Your task to perform on an android device: turn off javascript in the chrome app Image 0: 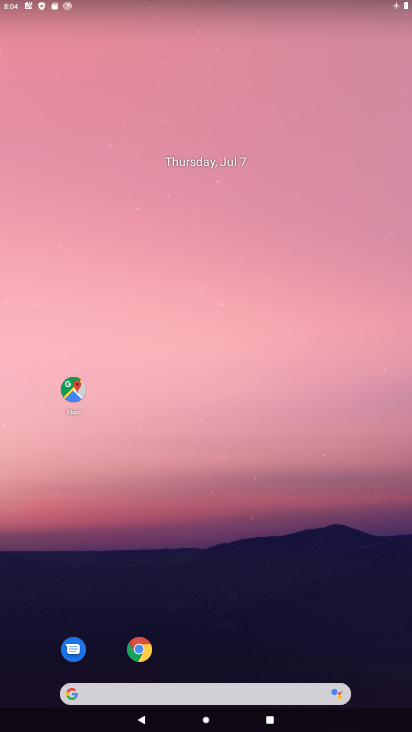
Step 0: drag from (318, 724) to (201, 251)
Your task to perform on an android device: turn off javascript in the chrome app Image 1: 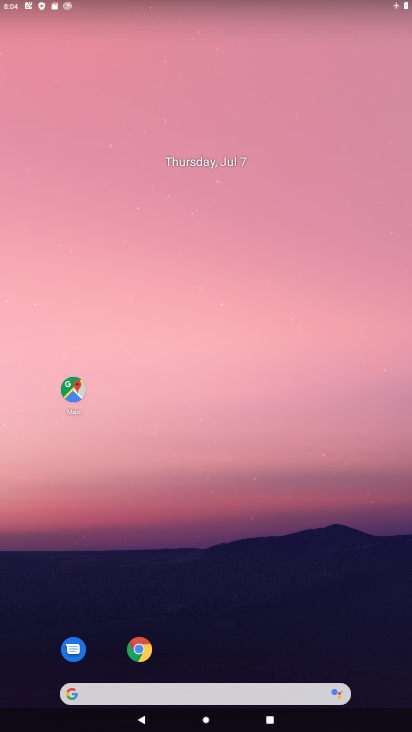
Step 1: drag from (260, 708) to (152, 190)
Your task to perform on an android device: turn off javascript in the chrome app Image 2: 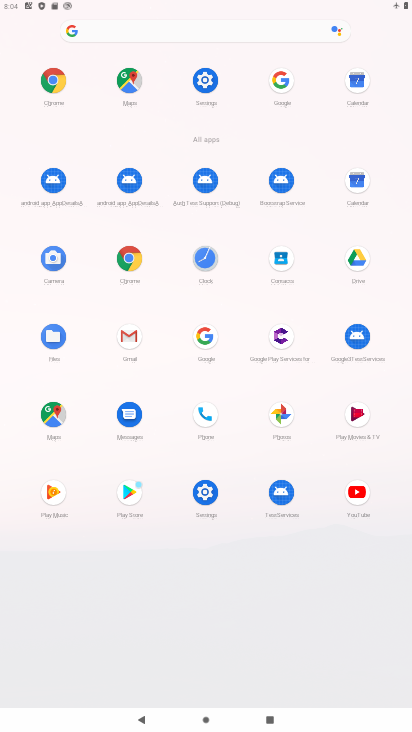
Step 2: click (206, 501)
Your task to perform on an android device: turn off javascript in the chrome app Image 3: 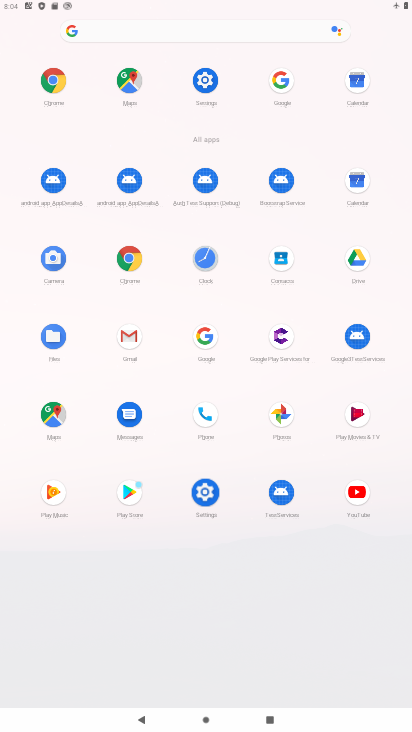
Step 3: click (206, 501)
Your task to perform on an android device: turn off javascript in the chrome app Image 4: 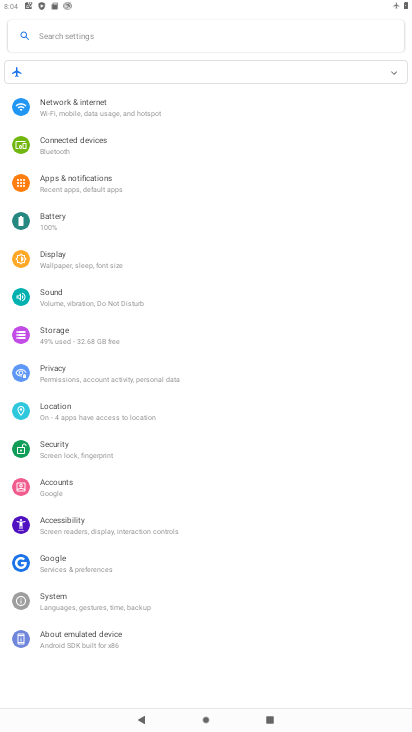
Step 4: click (206, 497)
Your task to perform on an android device: turn off javascript in the chrome app Image 5: 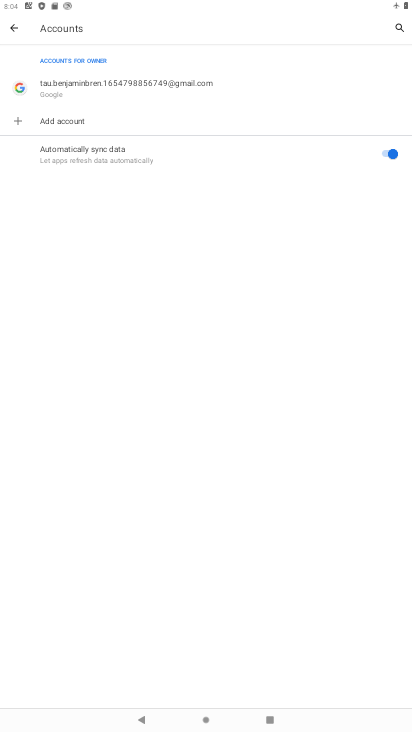
Step 5: press back button
Your task to perform on an android device: turn off javascript in the chrome app Image 6: 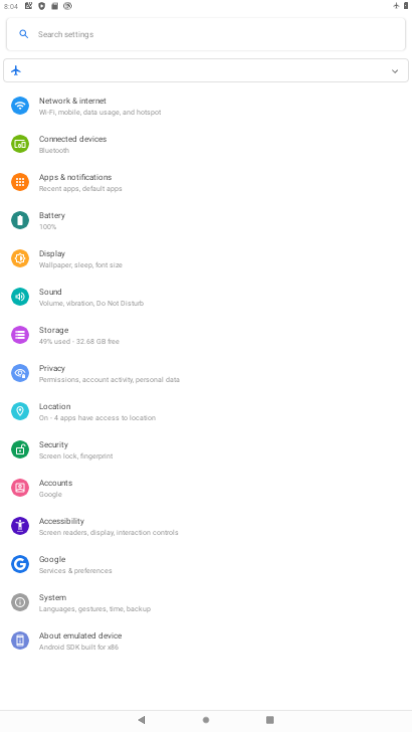
Step 6: press back button
Your task to perform on an android device: turn off javascript in the chrome app Image 7: 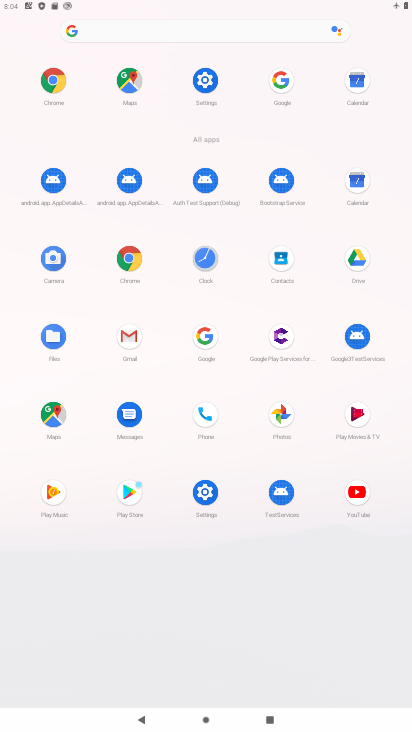
Step 7: click (135, 249)
Your task to perform on an android device: turn off javascript in the chrome app Image 8: 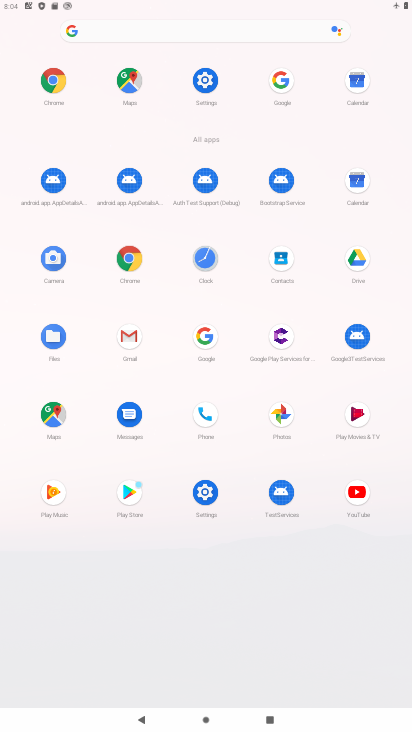
Step 8: click (135, 249)
Your task to perform on an android device: turn off javascript in the chrome app Image 9: 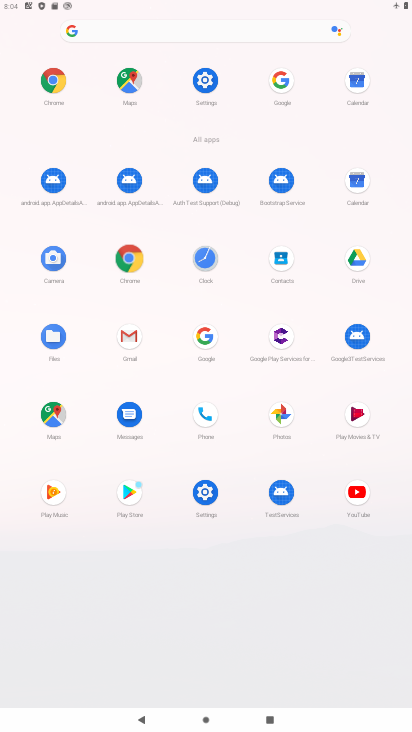
Step 9: click (135, 249)
Your task to perform on an android device: turn off javascript in the chrome app Image 10: 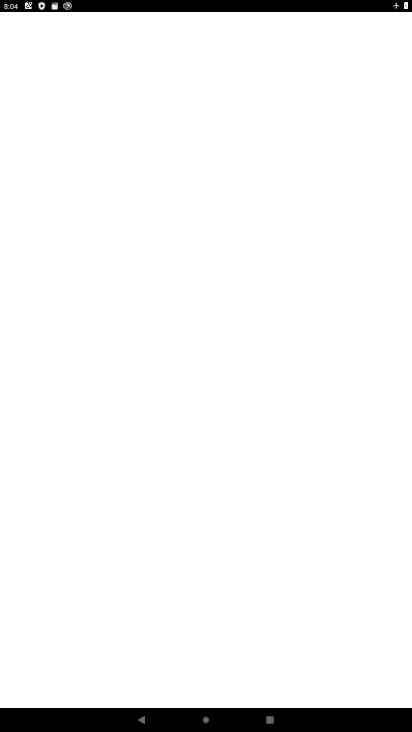
Step 10: click (135, 249)
Your task to perform on an android device: turn off javascript in the chrome app Image 11: 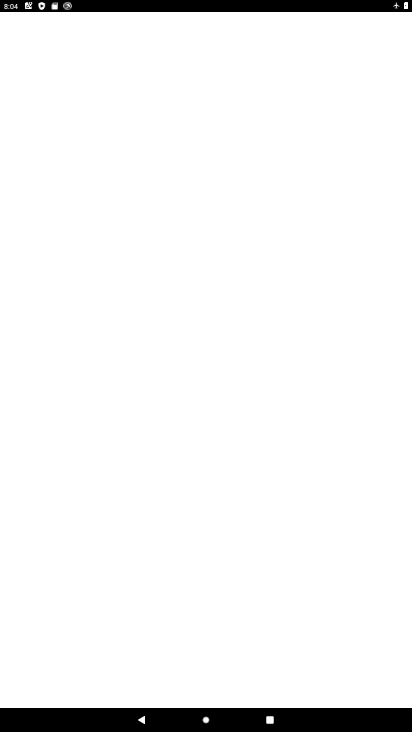
Step 11: click (135, 249)
Your task to perform on an android device: turn off javascript in the chrome app Image 12: 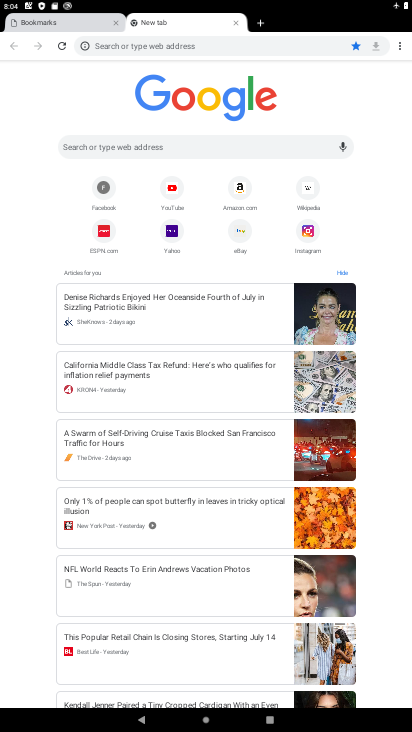
Step 12: drag from (403, 45) to (303, 209)
Your task to perform on an android device: turn off javascript in the chrome app Image 13: 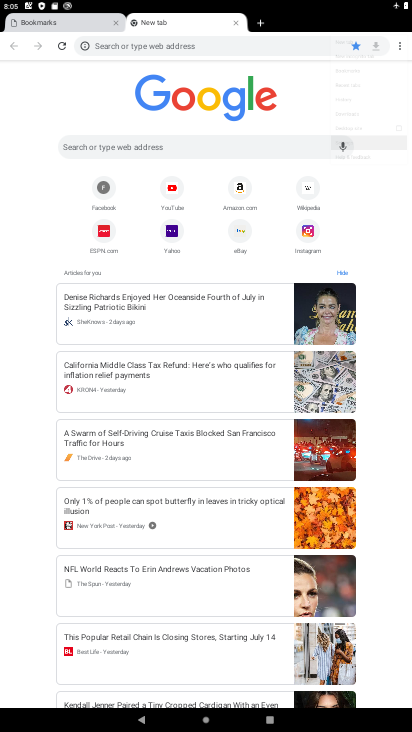
Step 13: click (303, 209)
Your task to perform on an android device: turn off javascript in the chrome app Image 14: 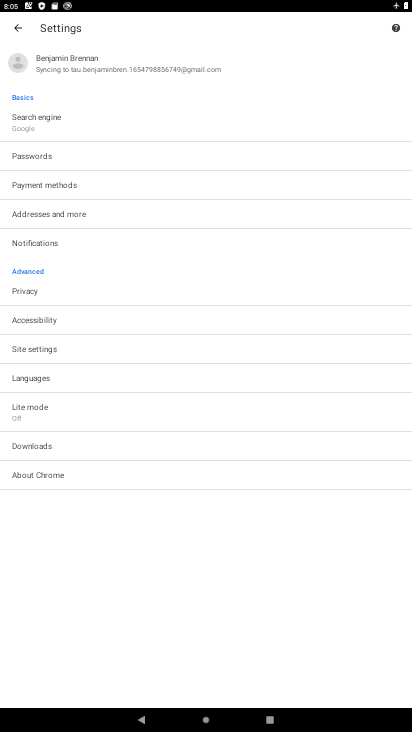
Step 14: click (47, 346)
Your task to perform on an android device: turn off javascript in the chrome app Image 15: 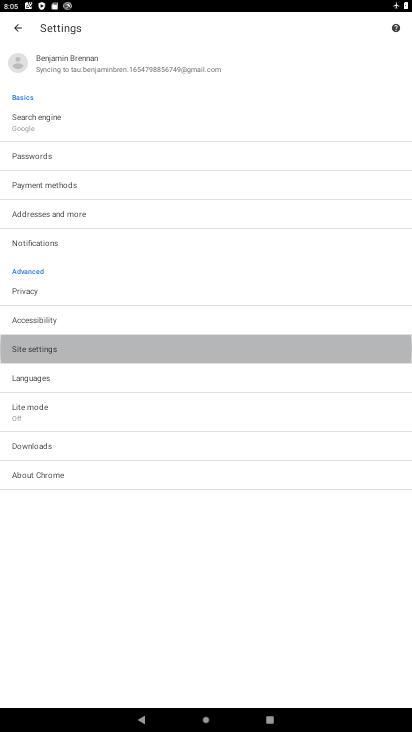
Step 15: click (47, 346)
Your task to perform on an android device: turn off javascript in the chrome app Image 16: 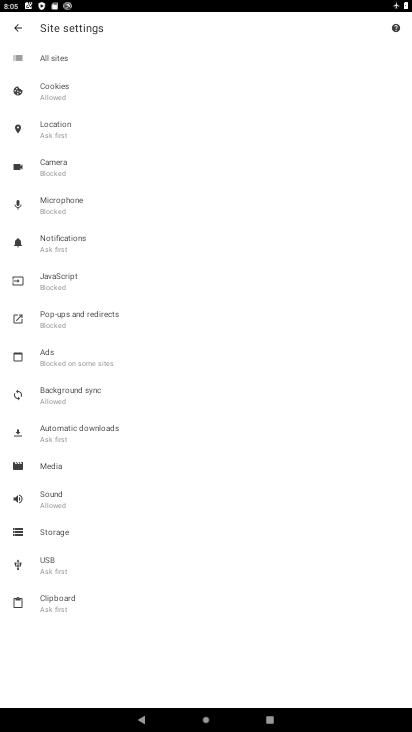
Step 16: click (56, 280)
Your task to perform on an android device: turn off javascript in the chrome app Image 17: 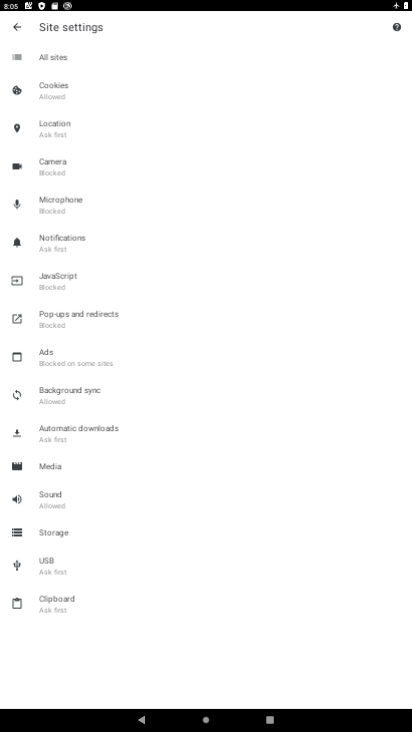
Step 17: click (56, 280)
Your task to perform on an android device: turn off javascript in the chrome app Image 18: 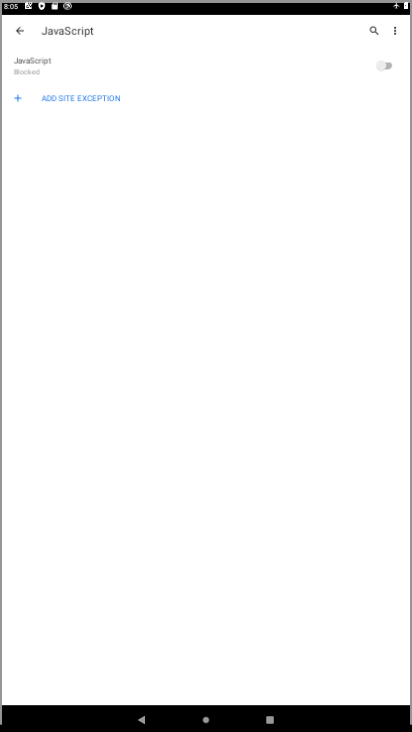
Step 18: click (56, 280)
Your task to perform on an android device: turn off javascript in the chrome app Image 19: 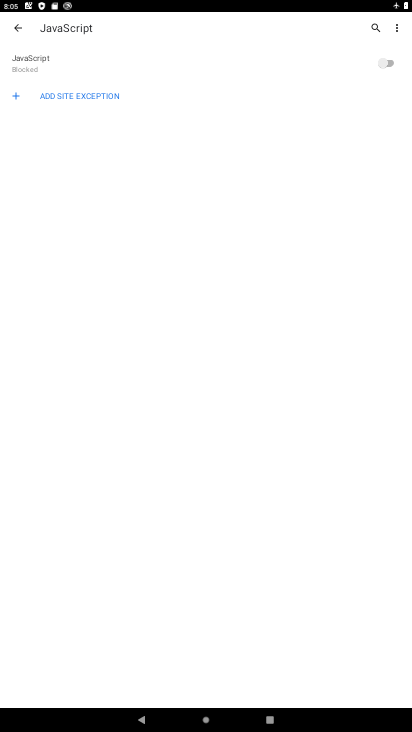
Step 19: task complete